Your task to perform on an android device: Go to CNN.com Image 0: 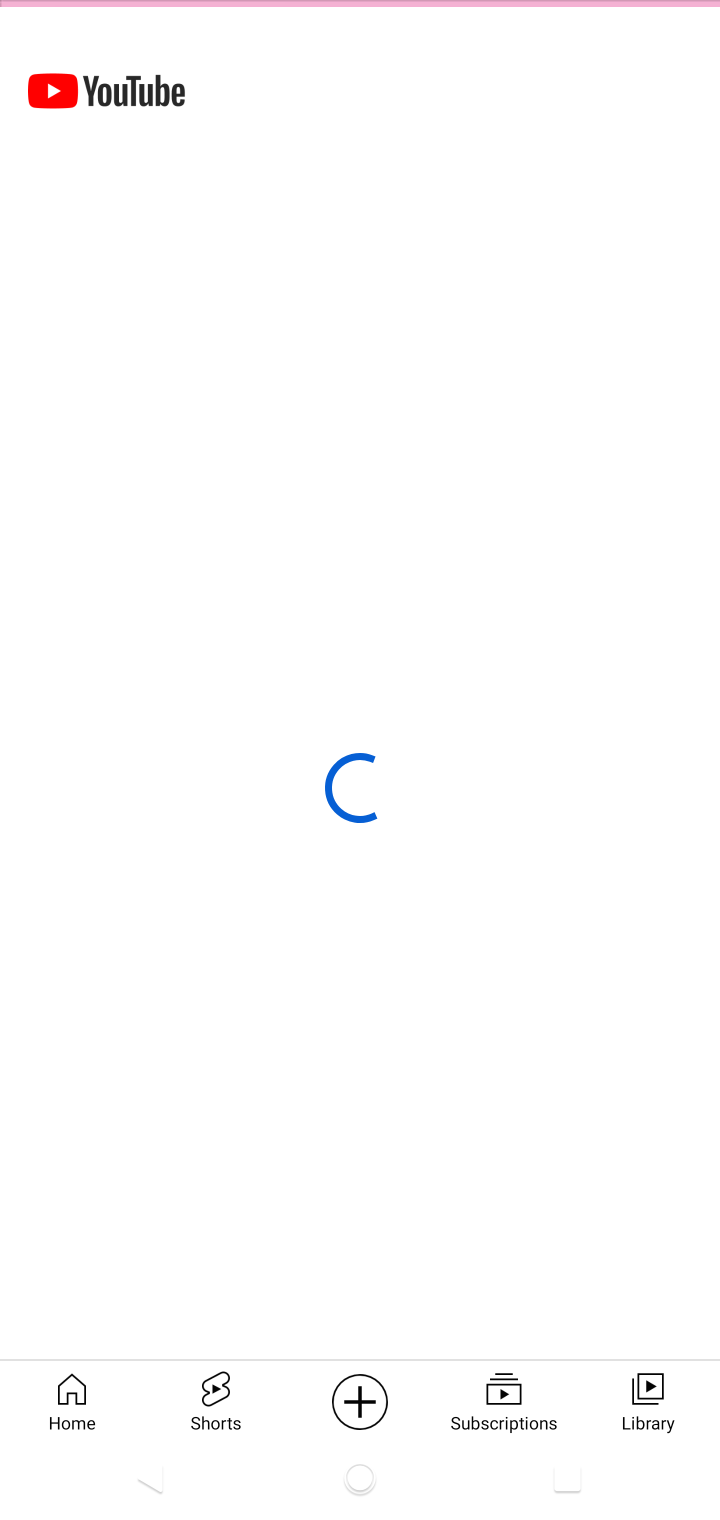
Step 0: press home button
Your task to perform on an android device: Go to CNN.com Image 1: 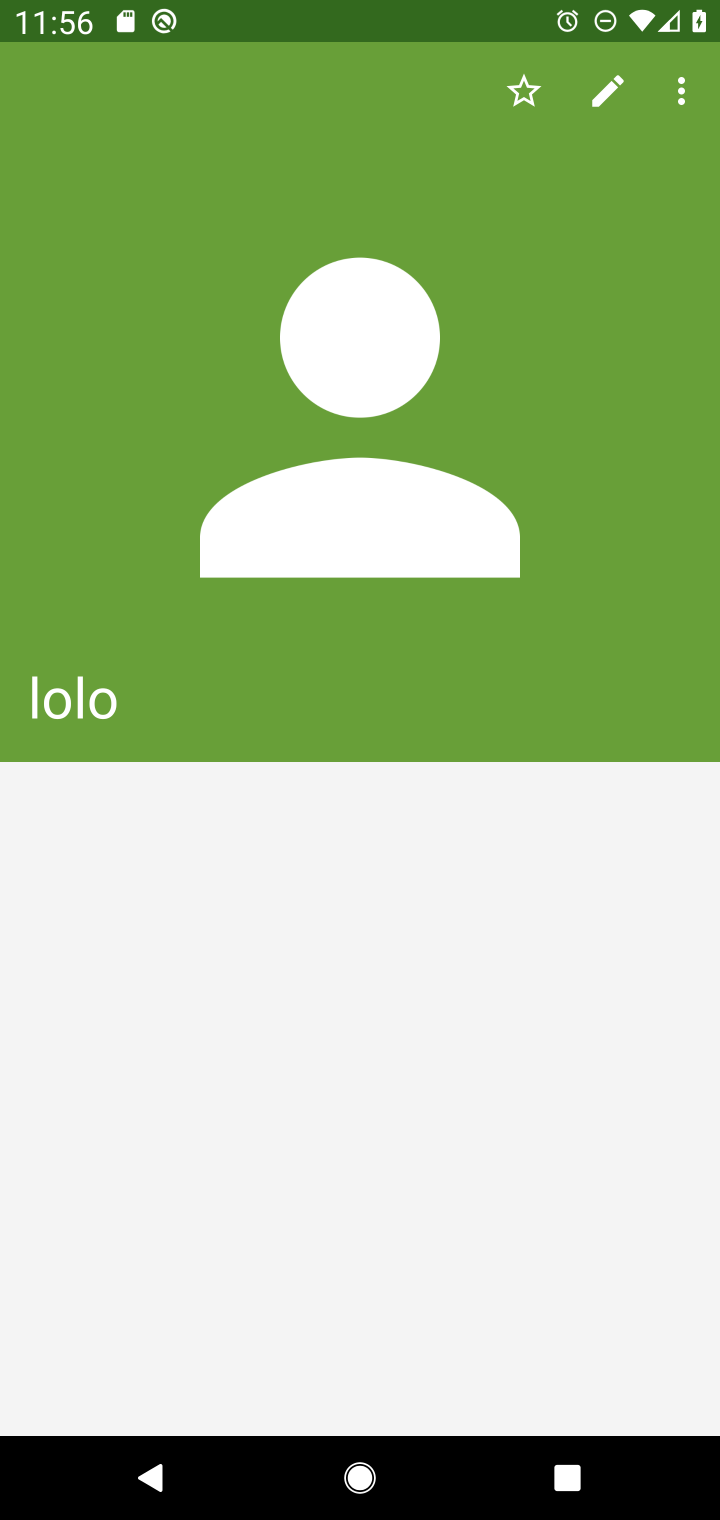
Step 1: press home button
Your task to perform on an android device: Go to CNN.com Image 2: 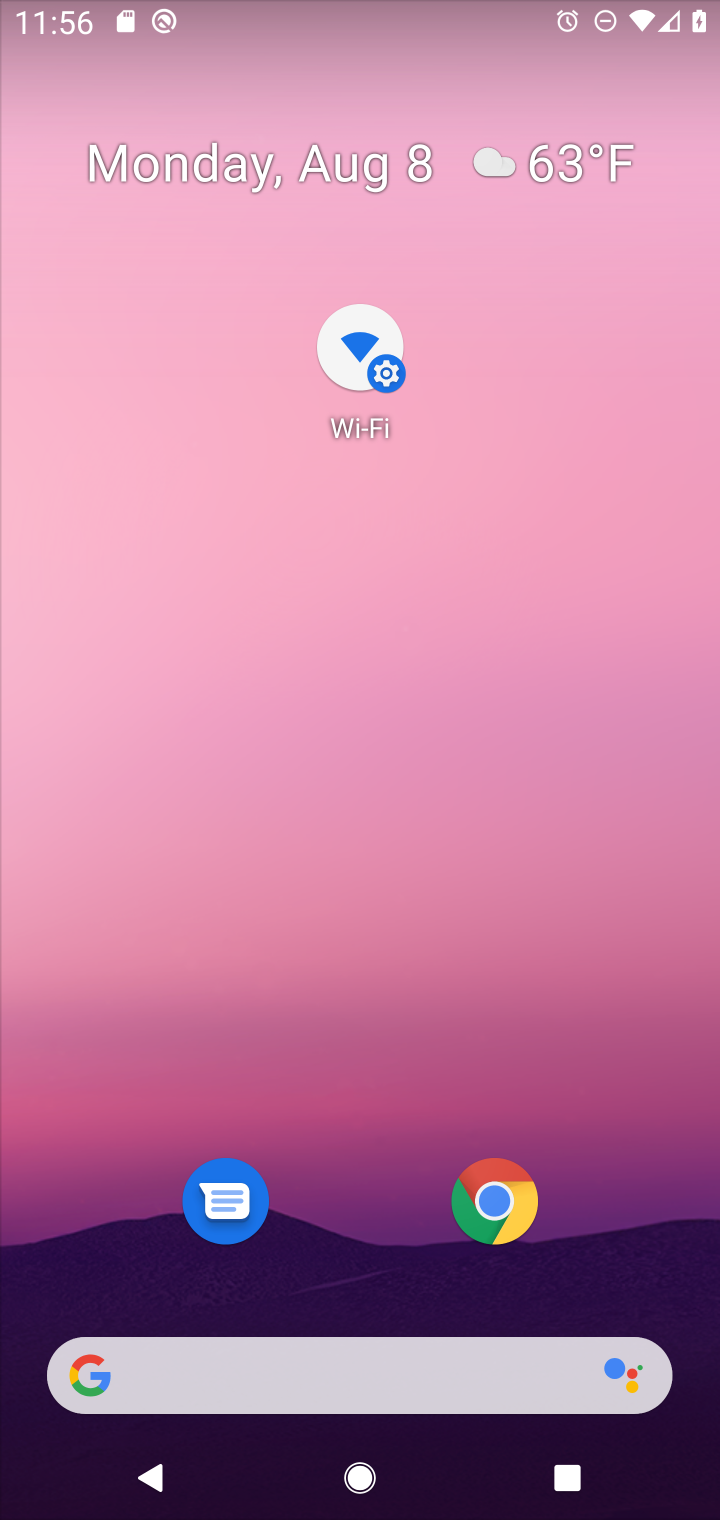
Step 2: press home button
Your task to perform on an android device: Go to CNN.com Image 3: 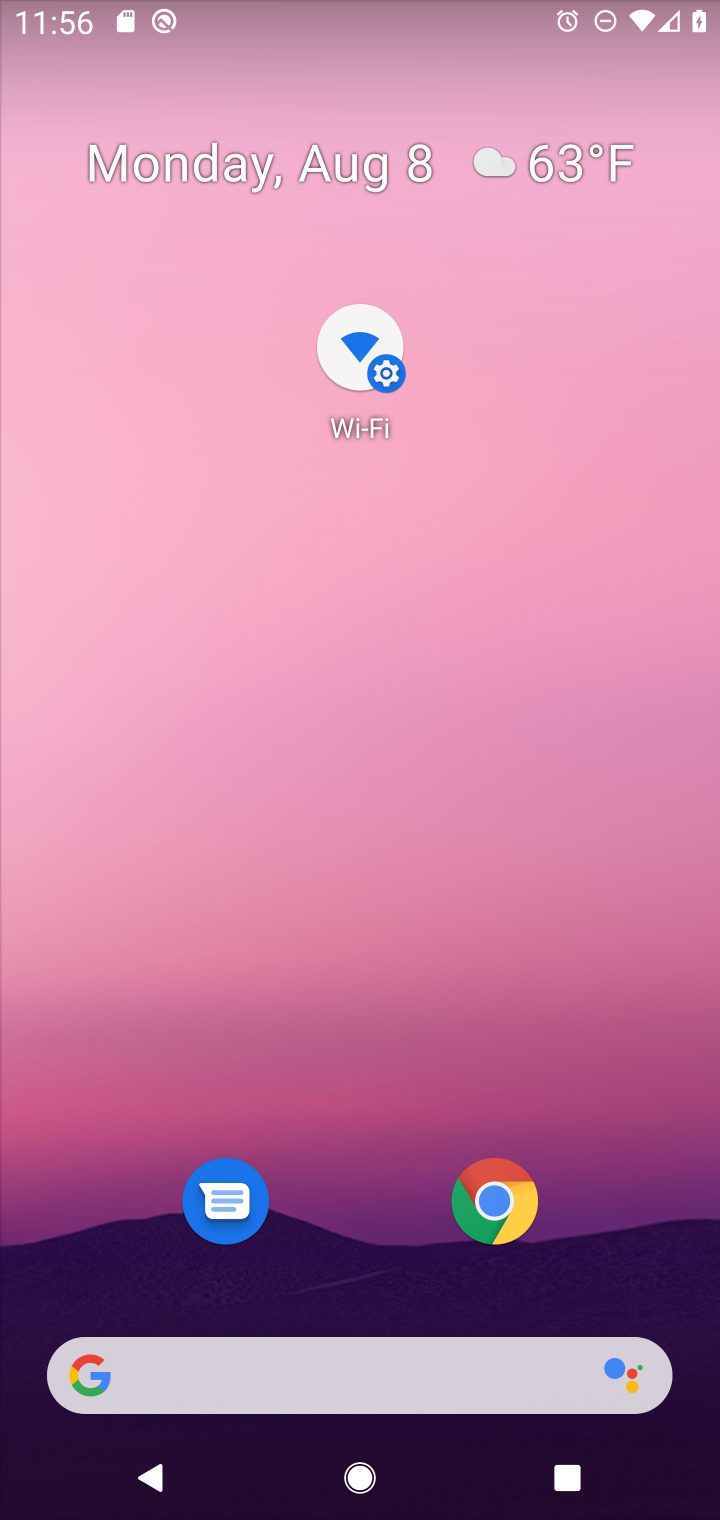
Step 3: drag from (623, 1079) to (623, 131)
Your task to perform on an android device: Go to CNN.com Image 4: 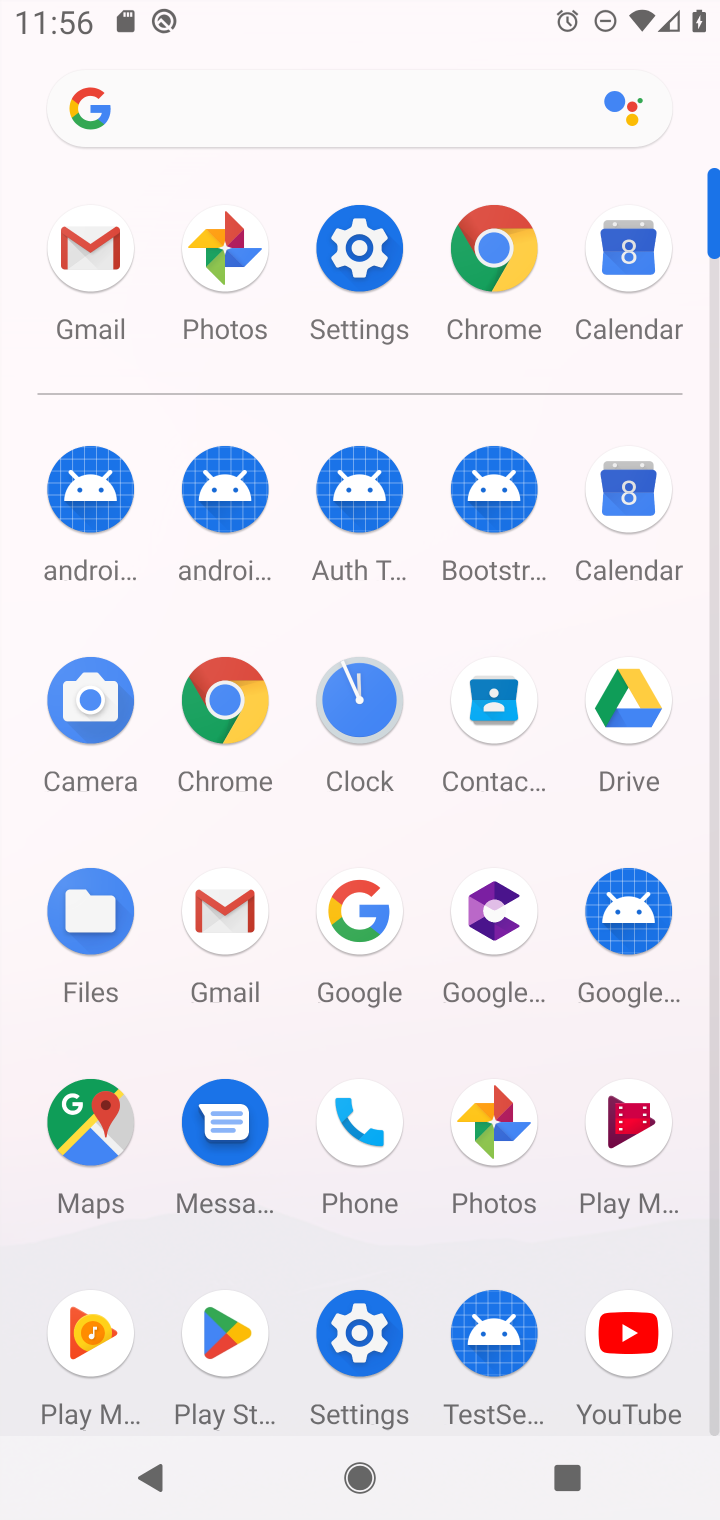
Step 4: click (217, 719)
Your task to perform on an android device: Go to CNN.com Image 5: 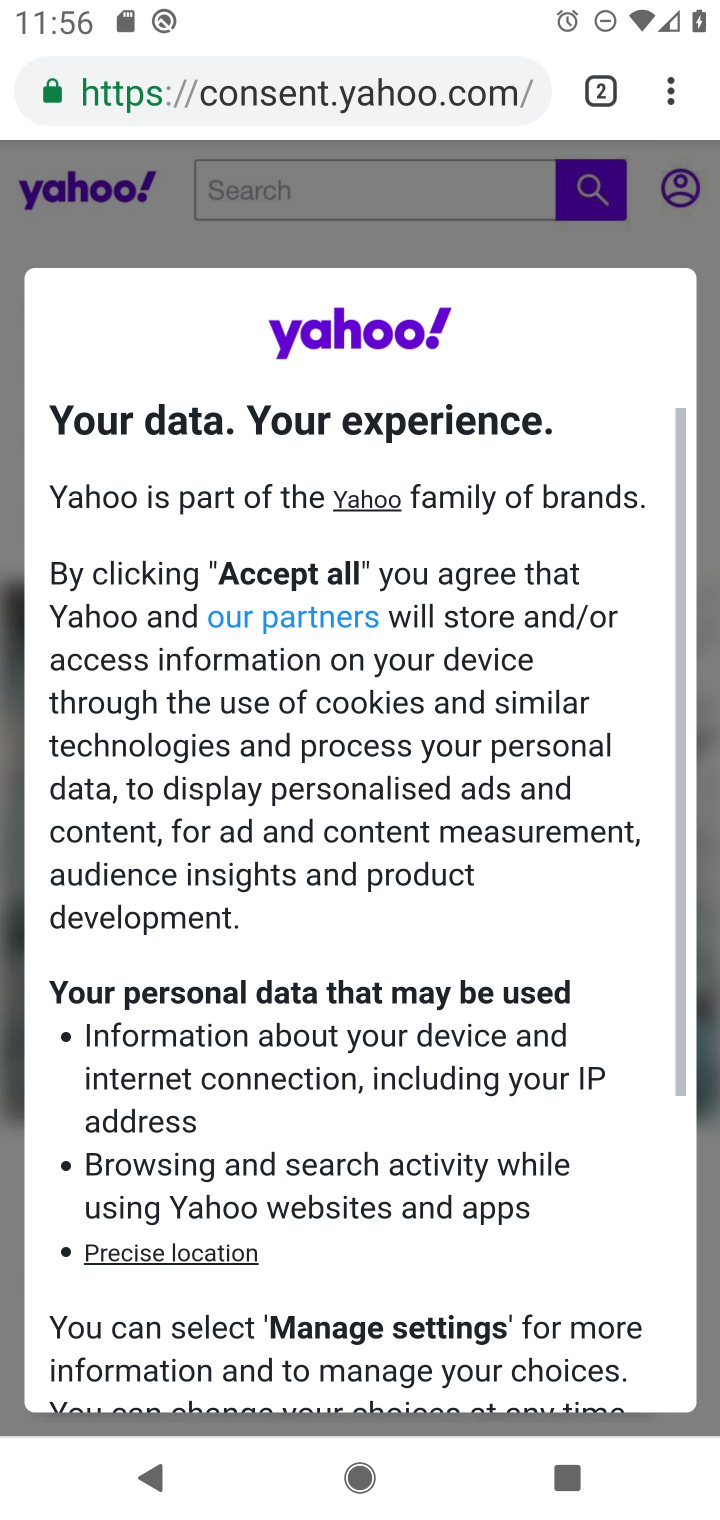
Step 5: click (421, 72)
Your task to perform on an android device: Go to CNN.com Image 6: 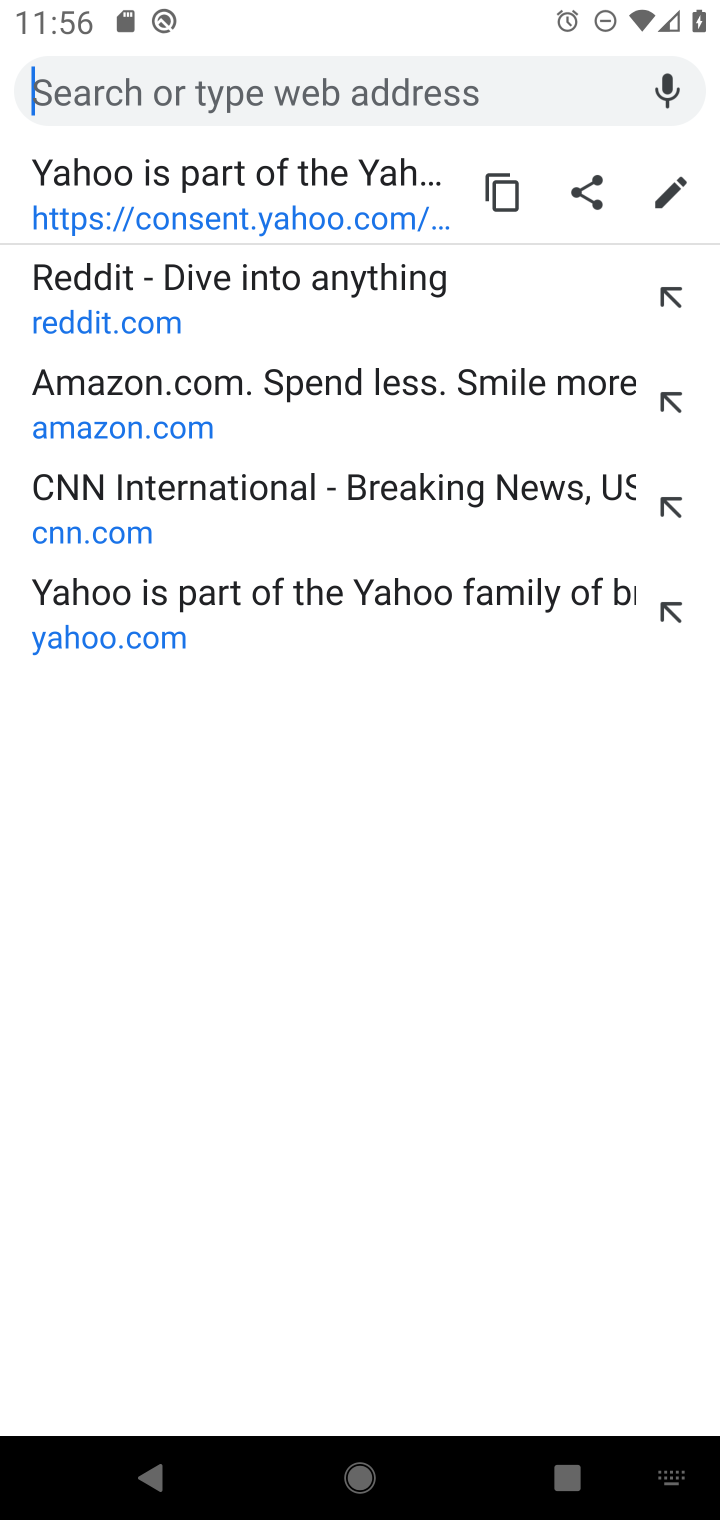
Step 6: type "cnn.com"
Your task to perform on an android device: Go to CNN.com Image 7: 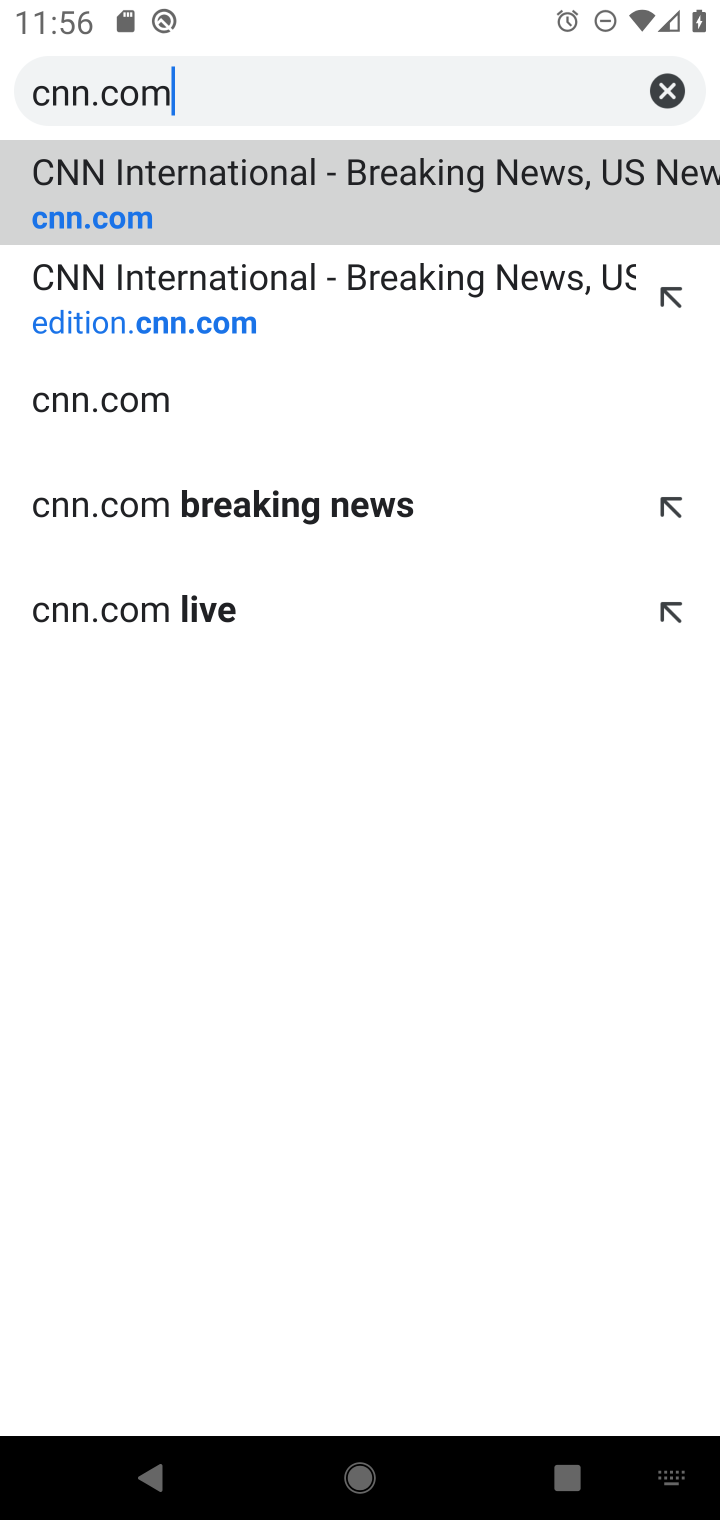
Step 7: click (383, 197)
Your task to perform on an android device: Go to CNN.com Image 8: 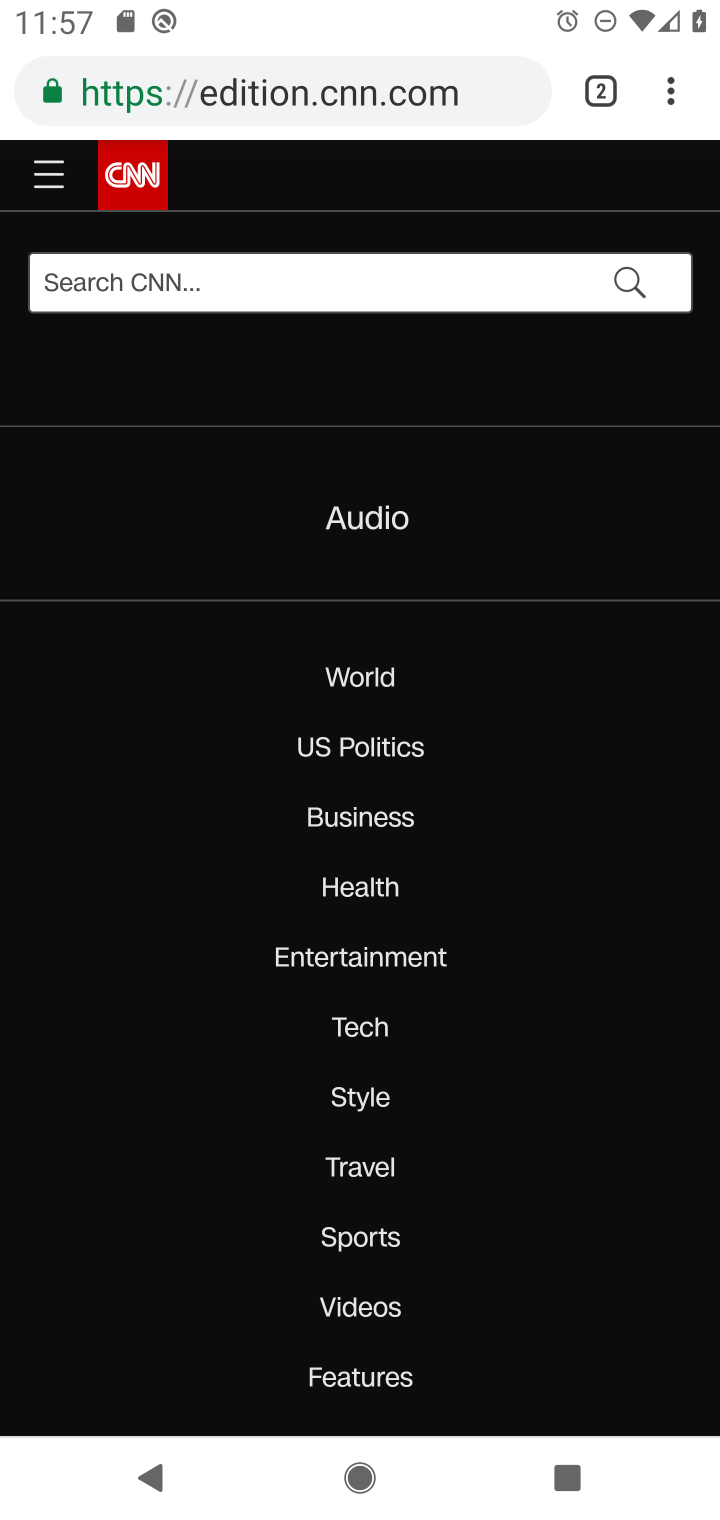
Step 8: task complete